Your task to perform on an android device: change alarm snooze length Image 0: 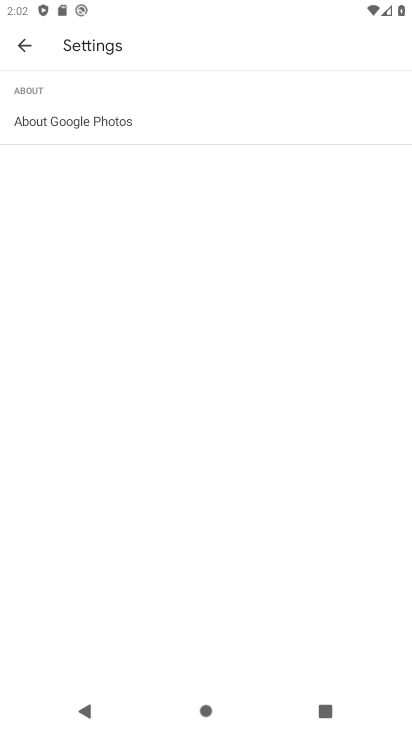
Step 0: press home button
Your task to perform on an android device: change alarm snooze length Image 1: 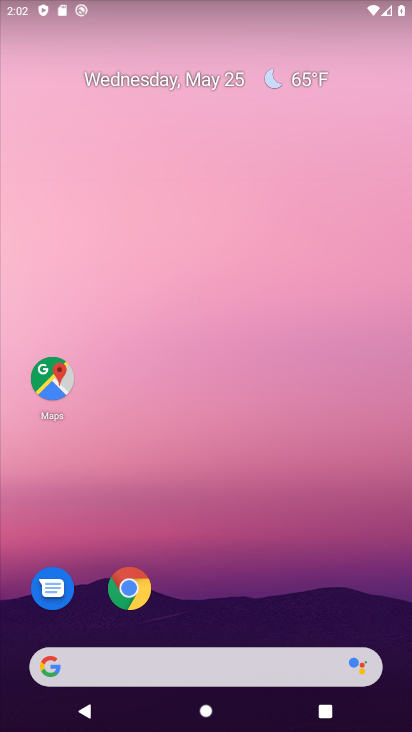
Step 1: drag from (220, 606) to (291, 229)
Your task to perform on an android device: change alarm snooze length Image 2: 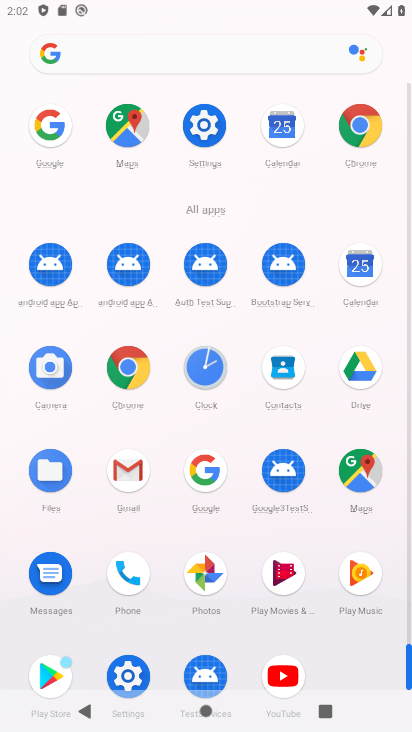
Step 2: click (200, 364)
Your task to perform on an android device: change alarm snooze length Image 3: 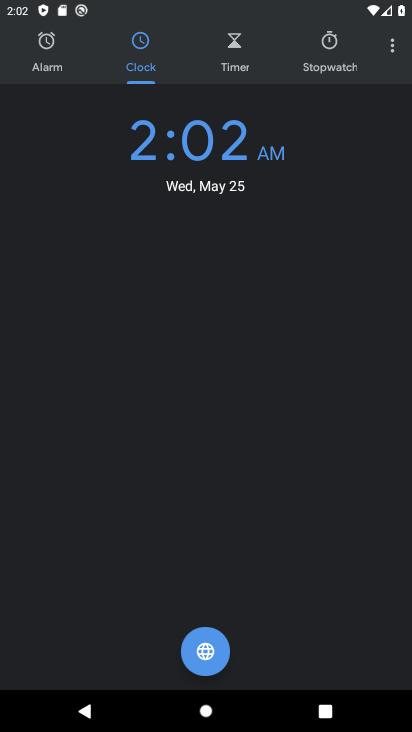
Step 3: click (394, 44)
Your task to perform on an android device: change alarm snooze length Image 4: 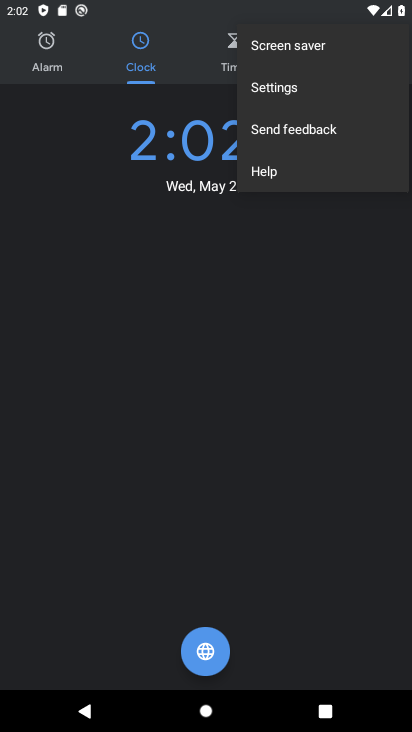
Step 4: click (294, 87)
Your task to perform on an android device: change alarm snooze length Image 5: 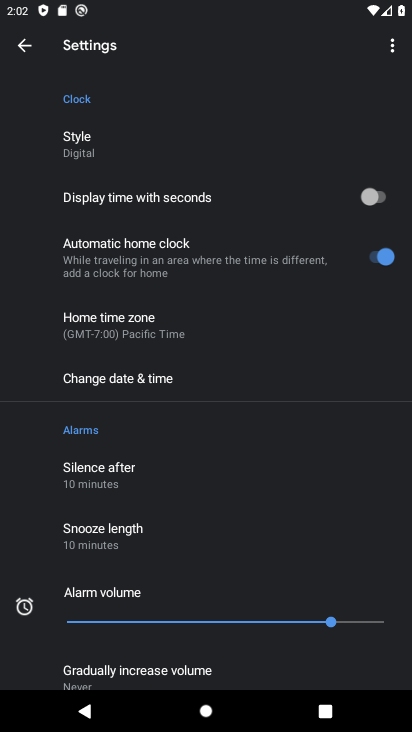
Step 5: click (111, 531)
Your task to perform on an android device: change alarm snooze length Image 6: 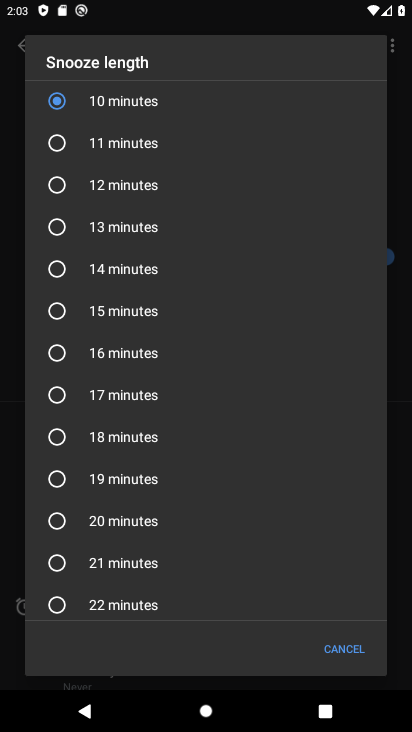
Step 6: click (105, 146)
Your task to perform on an android device: change alarm snooze length Image 7: 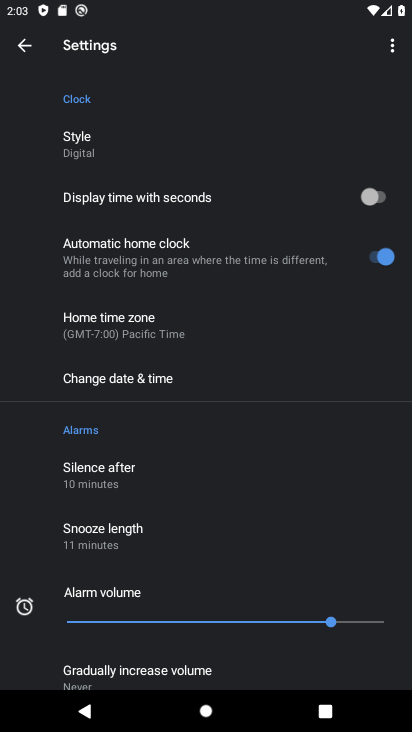
Step 7: task complete